Your task to perform on an android device: Open Chrome and go to settings Image 0: 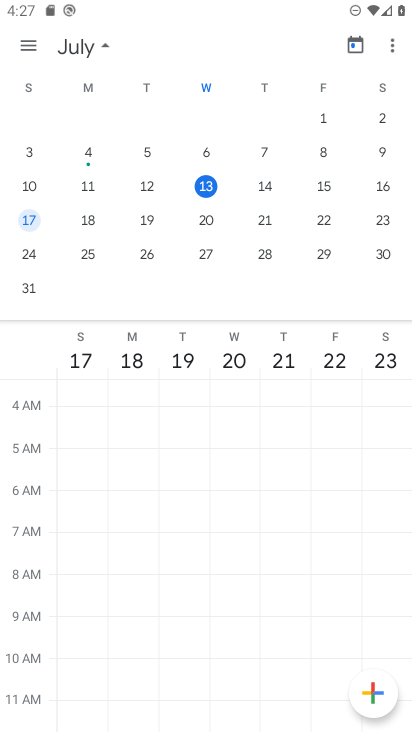
Step 0: press home button
Your task to perform on an android device: Open Chrome and go to settings Image 1: 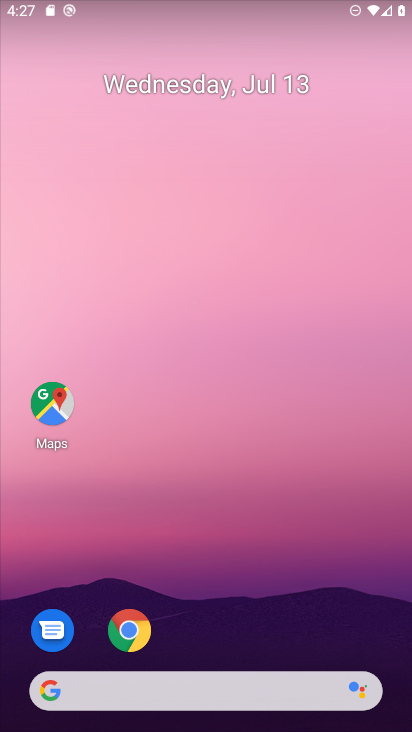
Step 1: click (189, 631)
Your task to perform on an android device: Open Chrome and go to settings Image 2: 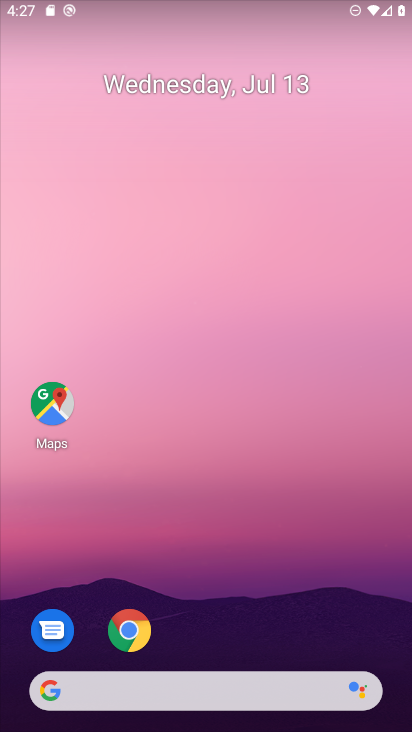
Step 2: click (189, 631)
Your task to perform on an android device: Open Chrome and go to settings Image 3: 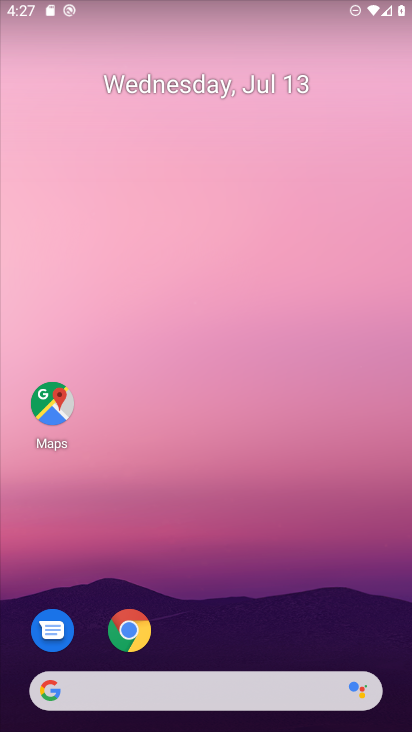
Step 3: click (132, 633)
Your task to perform on an android device: Open Chrome and go to settings Image 4: 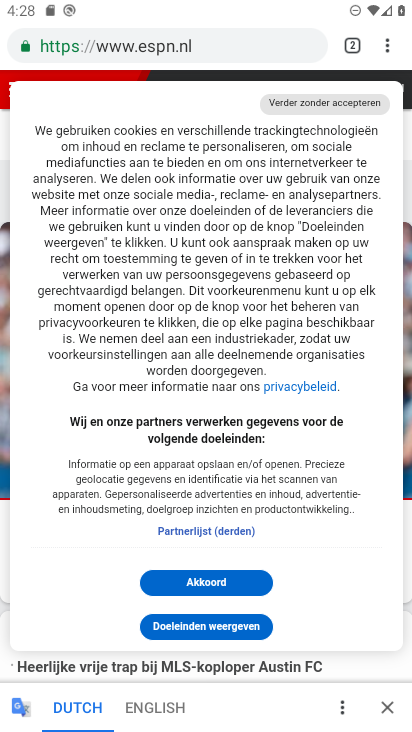
Step 4: click (390, 45)
Your task to perform on an android device: Open Chrome and go to settings Image 5: 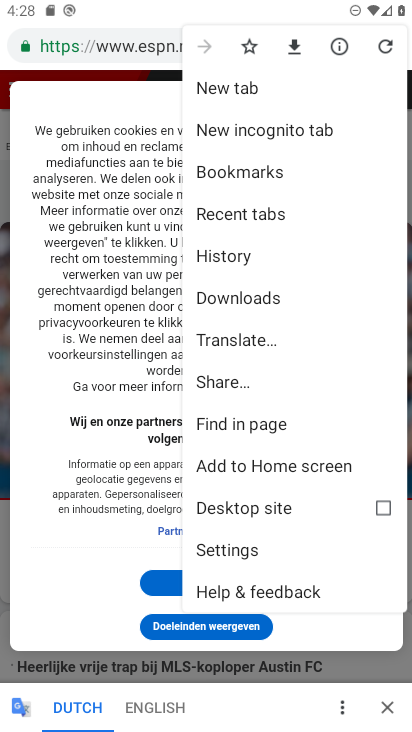
Step 5: click (222, 542)
Your task to perform on an android device: Open Chrome and go to settings Image 6: 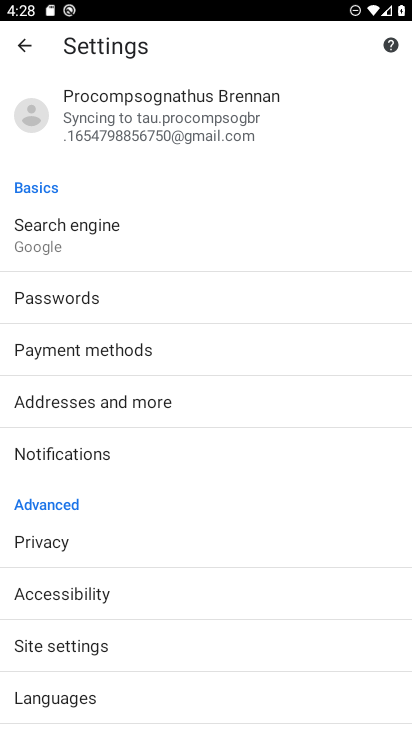
Step 6: task complete